Your task to perform on an android device: Open Maps and search for coffee Image 0: 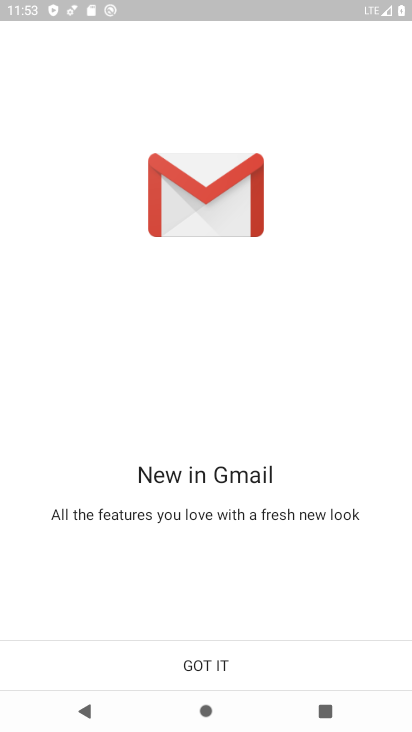
Step 0: drag from (384, 596) to (411, 534)
Your task to perform on an android device: Open Maps and search for coffee Image 1: 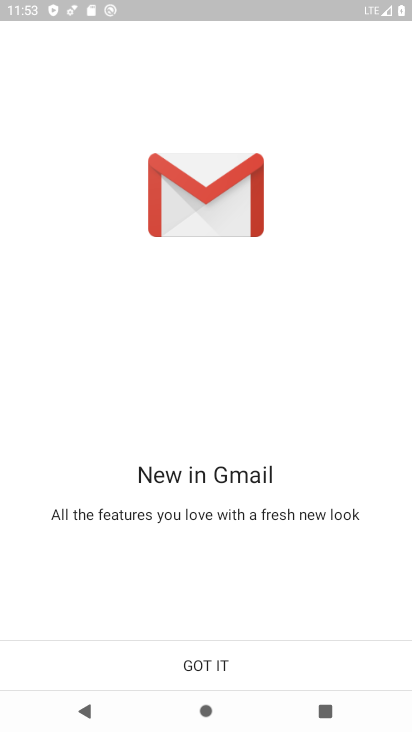
Step 1: press home button
Your task to perform on an android device: Open Maps and search for coffee Image 2: 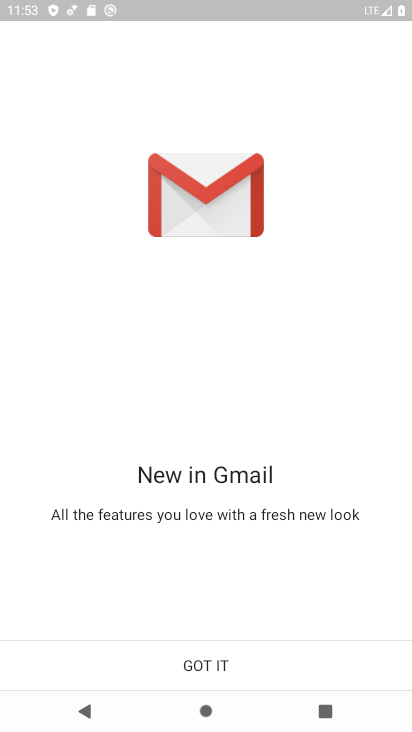
Step 2: click (411, 534)
Your task to perform on an android device: Open Maps and search for coffee Image 3: 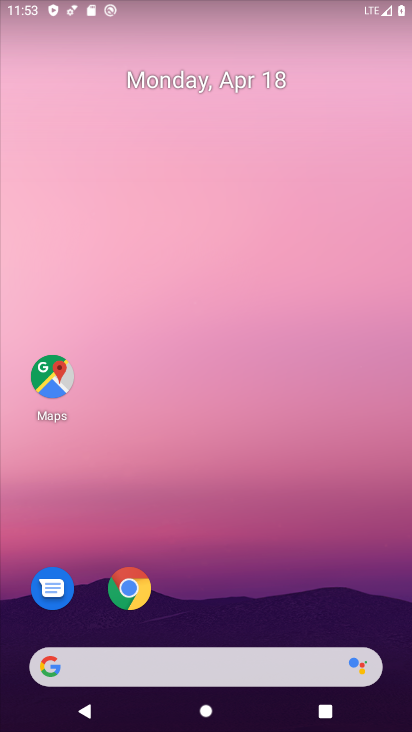
Step 3: drag from (337, 608) to (372, 132)
Your task to perform on an android device: Open Maps and search for coffee Image 4: 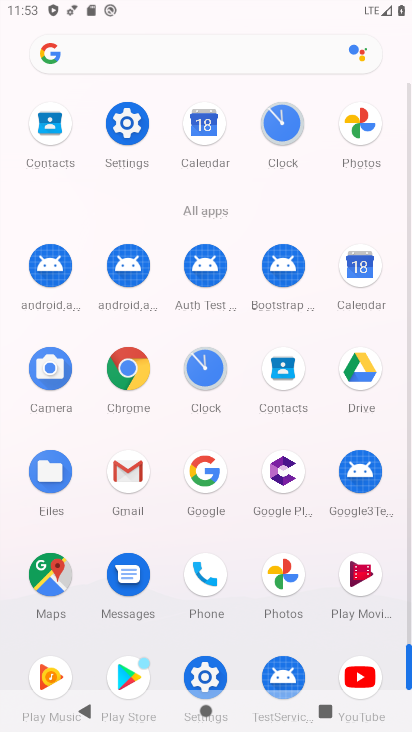
Step 4: click (45, 590)
Your task to perform on an android device: Open Maps and search for coffee Image 5: 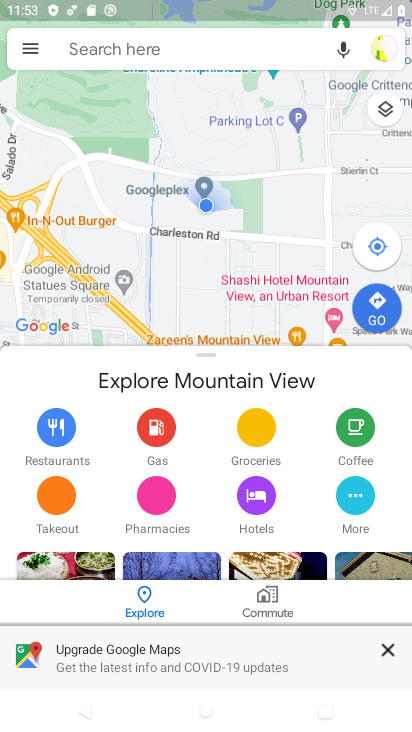
Step 5: click (211, 50)
Your task to perform on an android device: Open Maps and search for coffee Image 6: 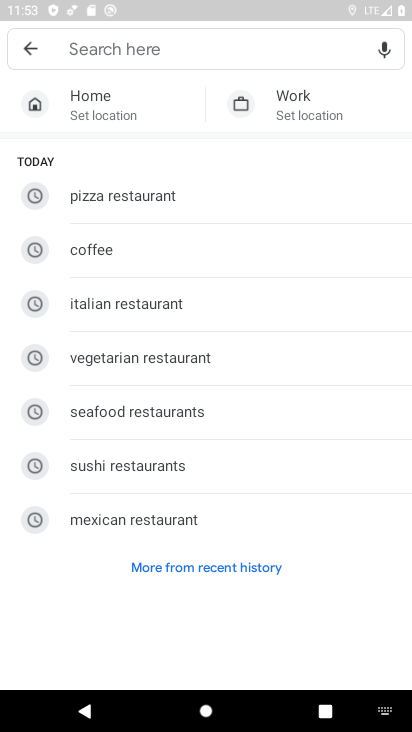
Step 6: type "coffee"
Your task to perform on an android device: Open Maps and search for coffee Image 7: 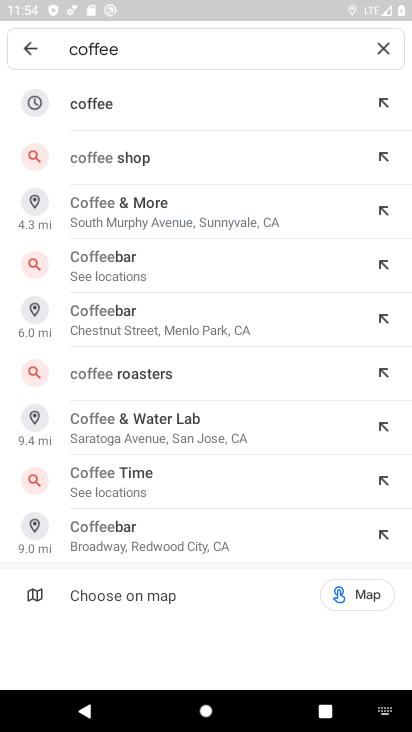
Step 7: click (115, 110)
Your task to perform on an android device: Open Maps and search for coffee Image 8: 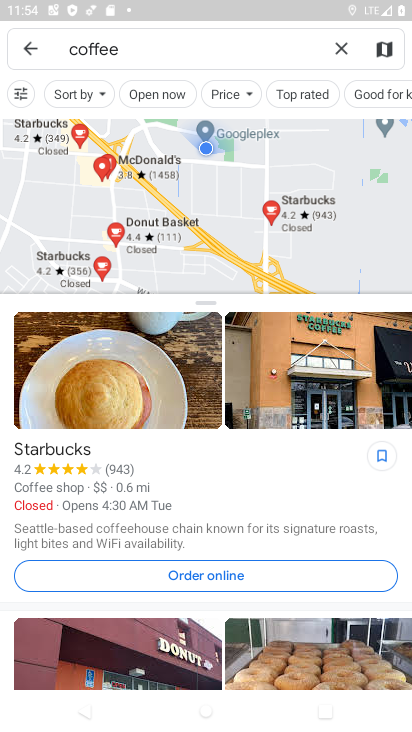
Step 8: task complete